Your task to perform on an android device: Show the shopping cart on walmart.com. Search for "bose soundsport free" on walmart.com, select the first entry, and add it to the cart. Image 0: 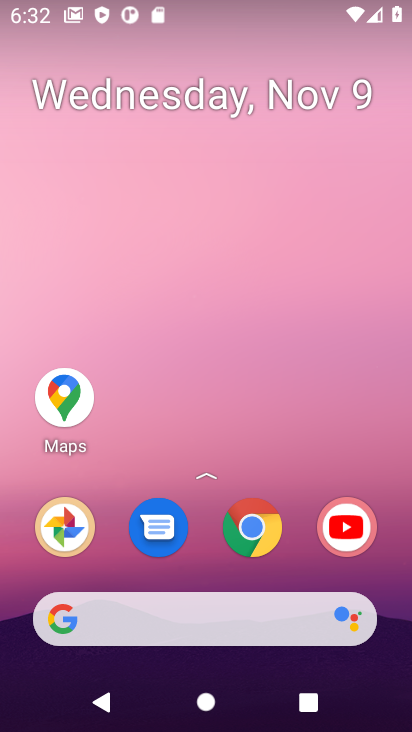
Step 0: click (255, 539)
Your task to perform on an android device: Show the shopping cart on walmart.com. Search for "bose soundsport free" on walmart.com, select the first entry, and add it to the cart. Image 1: 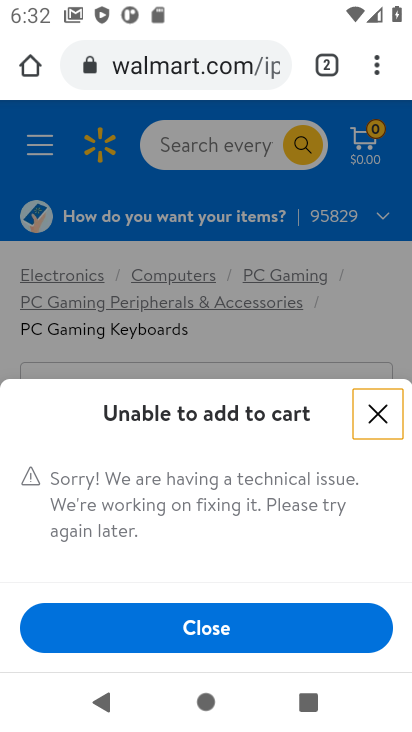
Step 1: click (209, 621)
Your task to perform on an android device: Show the shopping cart on walmart.com. Search for "bose soundsport free" on walmart.com, select the first entry, and add it to the cart. Image 2: 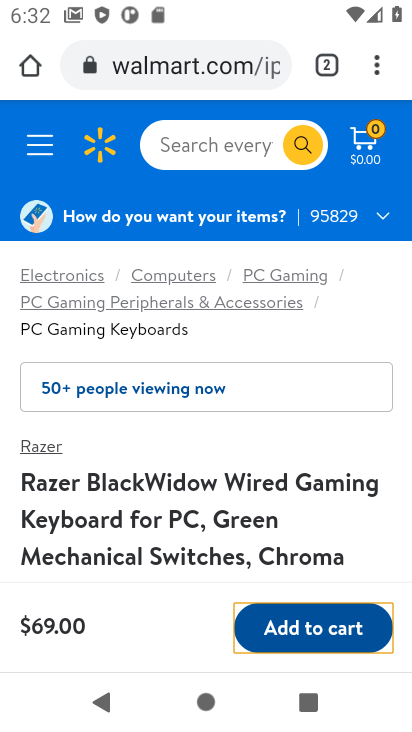
Step 2: click (358, 143)
Your task to perform on an android device: Show the shopping cart on walmart.com. Search for "bose soundsport free" on walmart.com, select the first entry, and add it to the cart. Image 3: 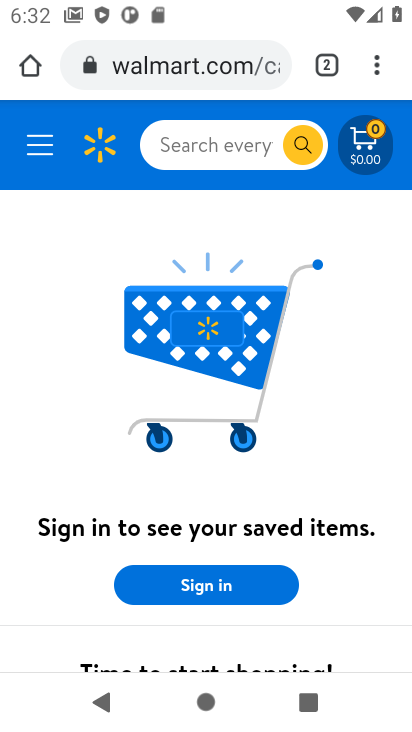
Step 3: click (212, 137)
Your task to perform on an android device: Show the shopping cart on walmart.com. Search for "bose soundsport free" on walmart.com, select the first entry, and add it to the cart. Image 4: 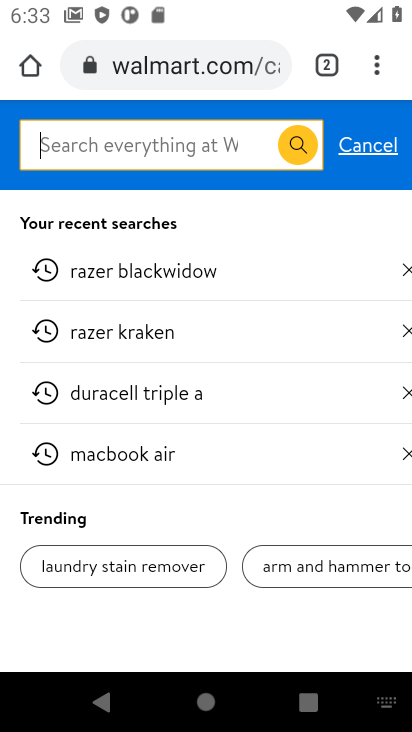
Step 4: type "bose soundsport free"
Your task to perform on an android device: Show the shopping cart on walmart.com. Search for "bose soundsport free" on walmart.com, select the first entry, and add it to the cart. Image 5: 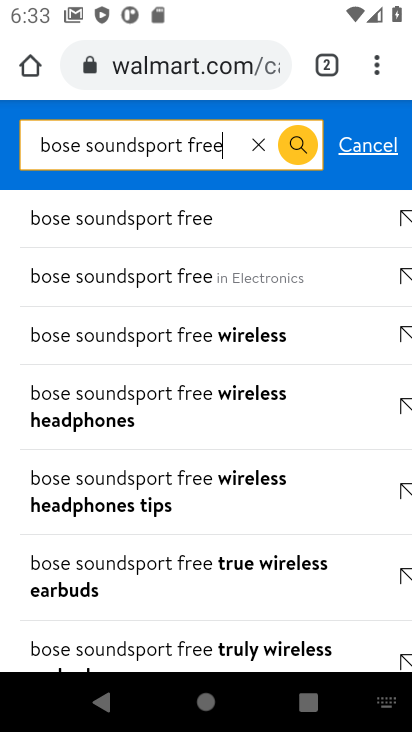
Step 5: click (157, 225)
Your task to perform on an android device: Show the shopping cart on walmart.com. Search for "bose soundsport free" on walmart.com, select the first entry, and add it to the cart. Image 6: 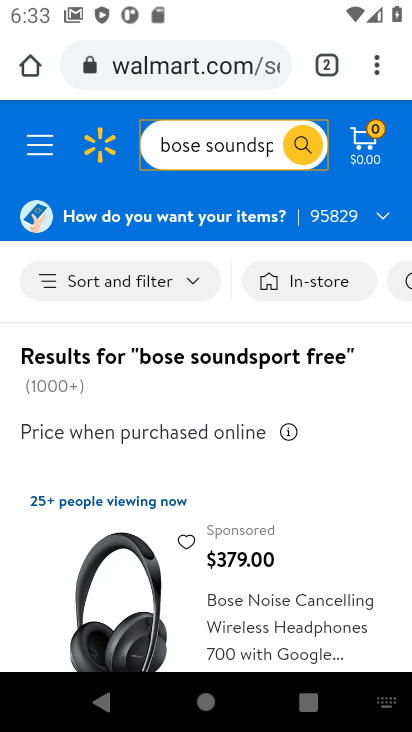
Step 6: task complete